Your task to perform on an android device: Go to Yahoo.com Image 0: 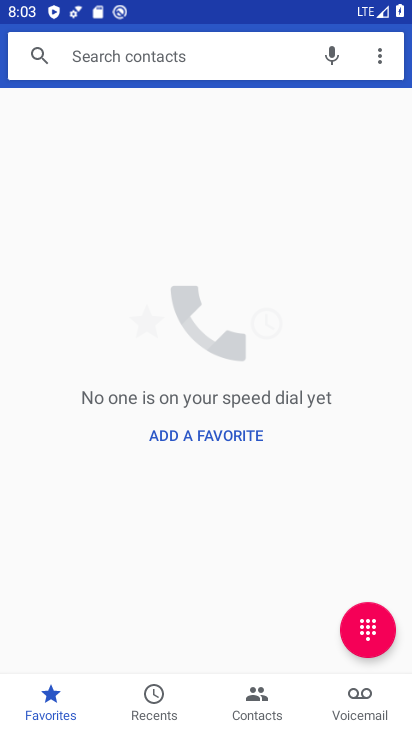
Step 0: press back button
Your task to perform on an android device: Go to Yahoo.com Image 1: 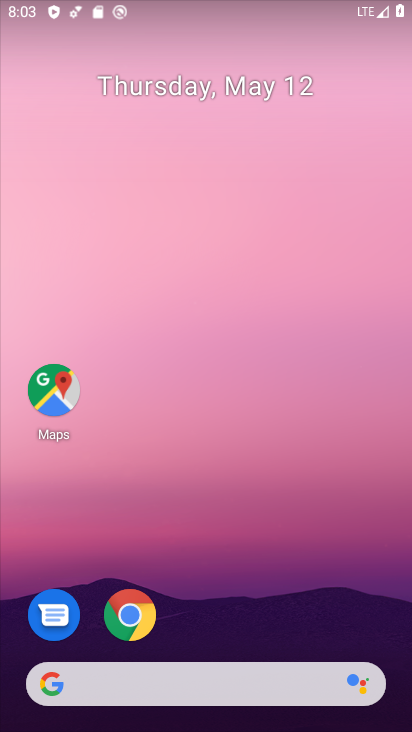
Step 1: drag from (227, 590) to (223, 52)
Your task to perform on an android device: Go to Yahoo.com Image 2: 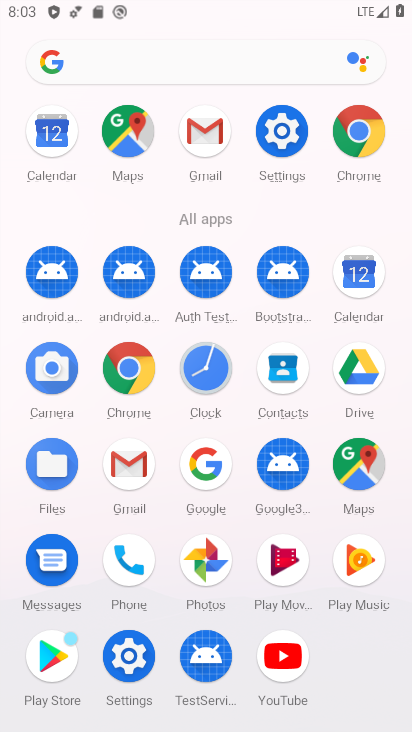
Step 2: click (354, 134)
Your task to perform on an android device: Go to Yahoo.com Image 3: 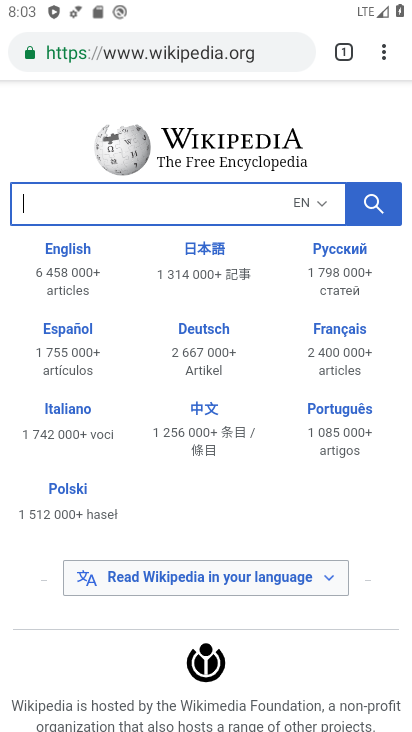
Step 3: click (166, 61)
Your task to perform on an android device: Go to Yahoo.com Image 4: 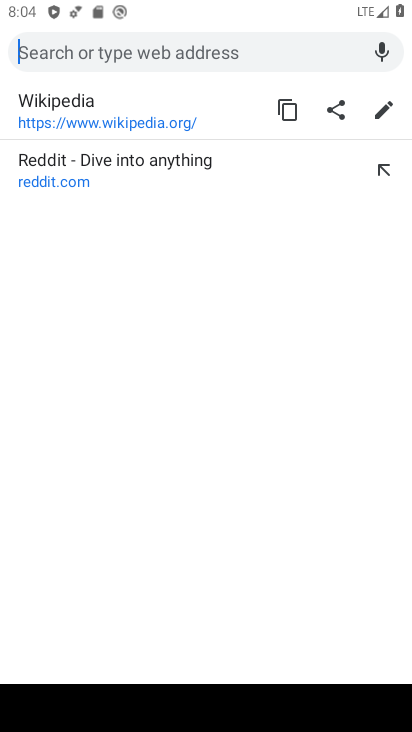
Step 4: type "Yahoo.com"
Your task to perform on an android device: Go to Yahoo.com Image 5: 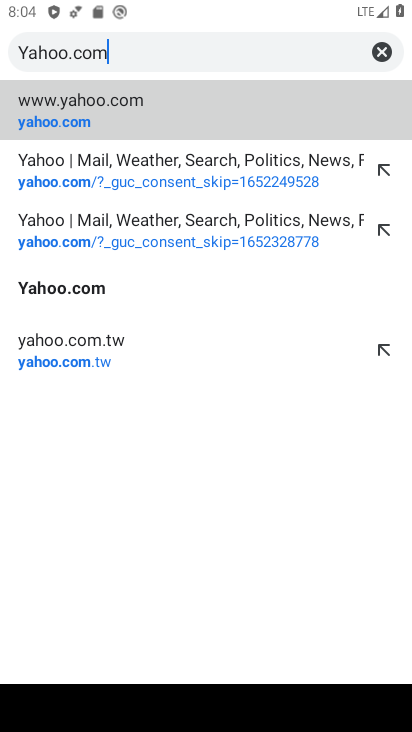
Step 5: click (123, 109)
Your task to perform on an android device: Go to Yahoo.com Image 6: 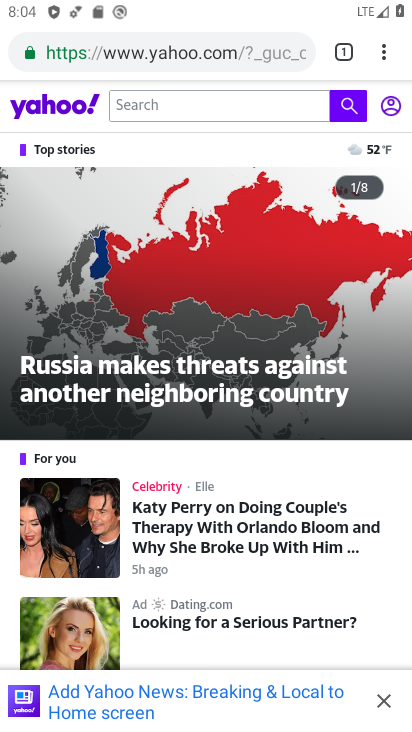
Step 6: task complete